Your task to perform on an android device: Go to Yahoo.com Image 0: 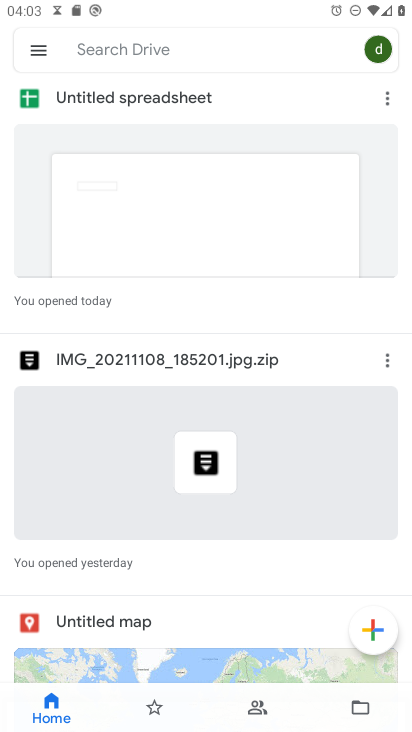
Step 0: press home button
Your task to perform on an android device: Go to Yahoo.com Image 1: 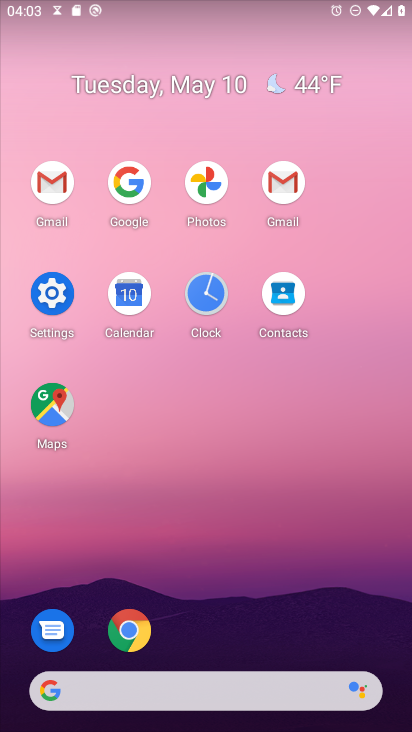
Step 1: click (131, 641)
Your task to perform on an android device: Go to Yahoo.com Image 2: 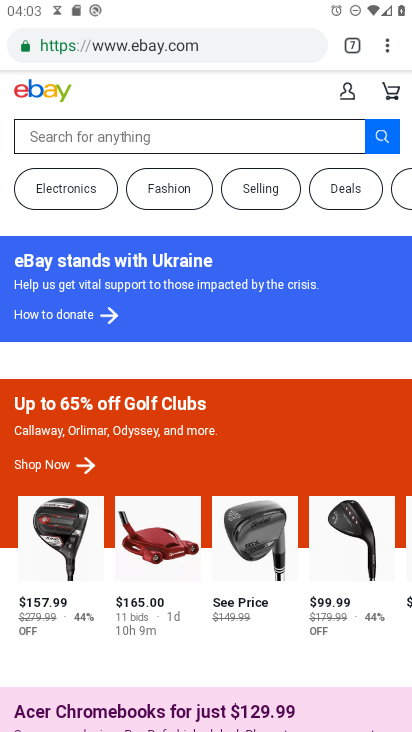
Step 2: click (347, 41)
Your task to perform on an android device: Go to Yahoo.com Image 3: 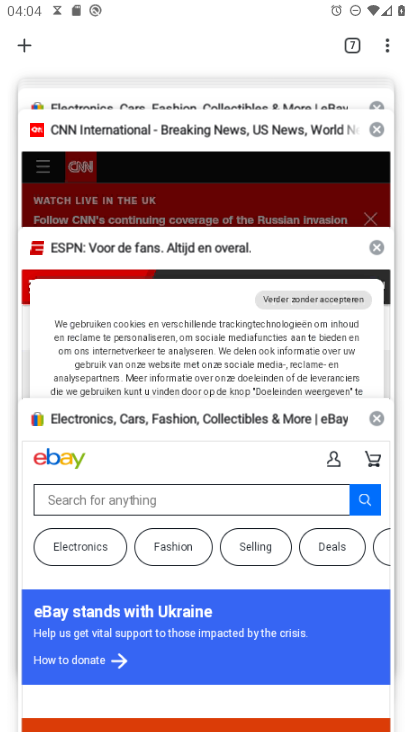
Step 3: drag from (262, 126) to (291, 490)
Your task to perform on an android device: Go to Yahoo.com Image 4: 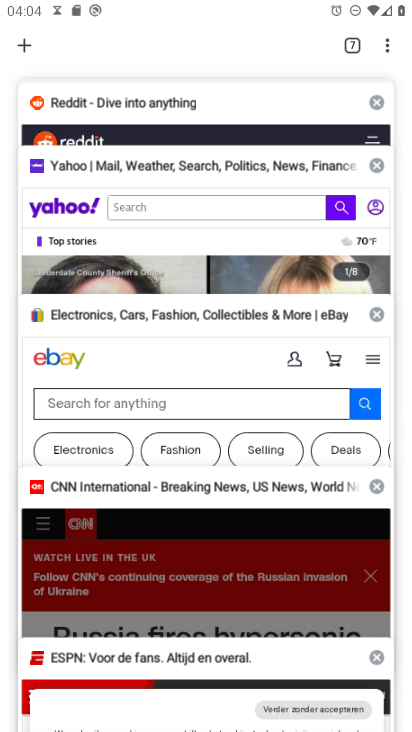
Step 4: click (75, 218)
Your task to perform on an android device: Go to Yahoo.com Image 5: 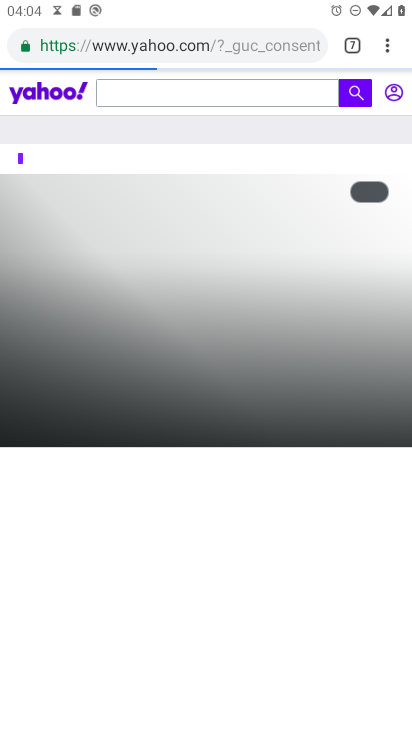
Step 5: task complete